Your task to perform on an android device: turn on airplane mode Image 0: 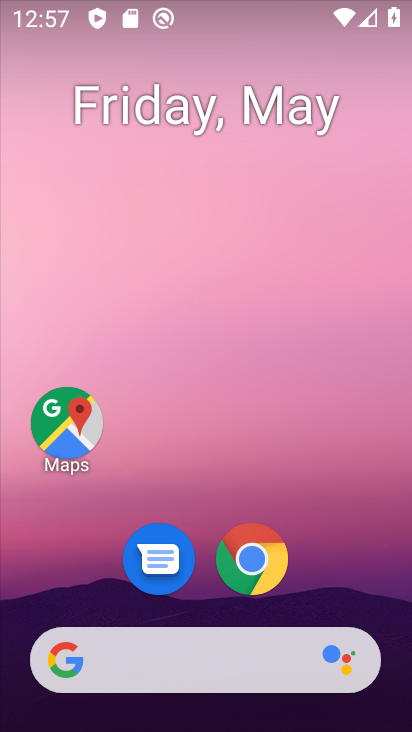
Step 0: drag from (382, 575) to (291, 97)
Your task to perform on an android device: turn on airplane mode Image 1: 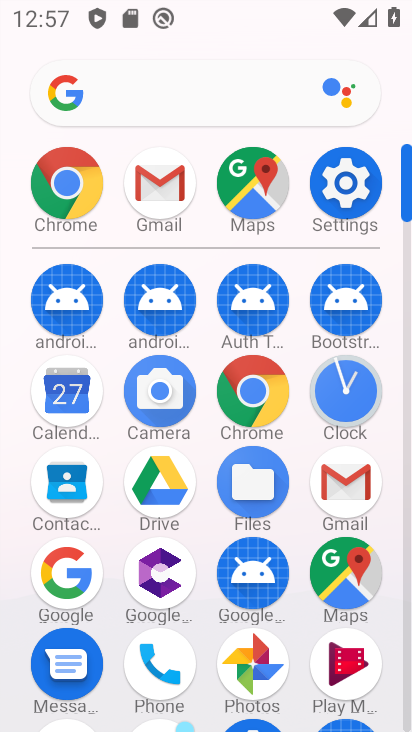
Step 1: click (334, 184)
Your task to perform on an android device: turn on airplane mode Image 2: 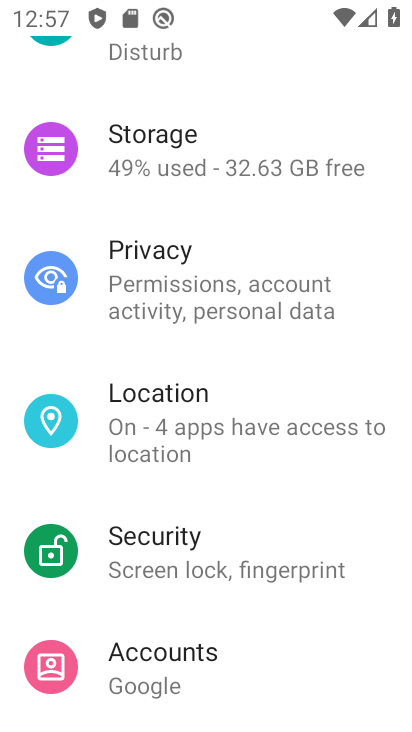
Step 2: drag from (324, 218) to (238, 618)
Your task to perform on an android device: turn on airplane mode Image 3: 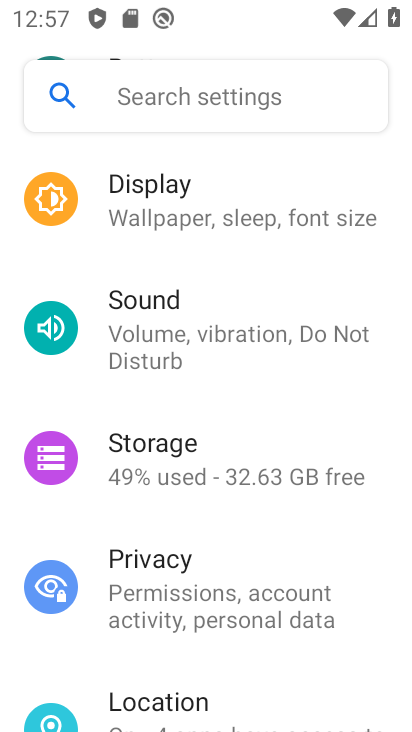
Step 3: drag from (178, 170) to (240, 632)
Your task to perform on an android device: turn on airplane mode Image 4: 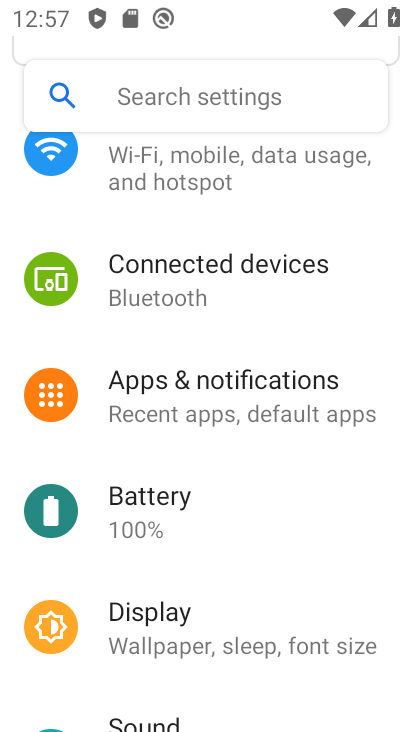
Step 4: drag from (203, 180) to (215, 580)
Your task to perform on an android device: turn on airplane mode Image 5: 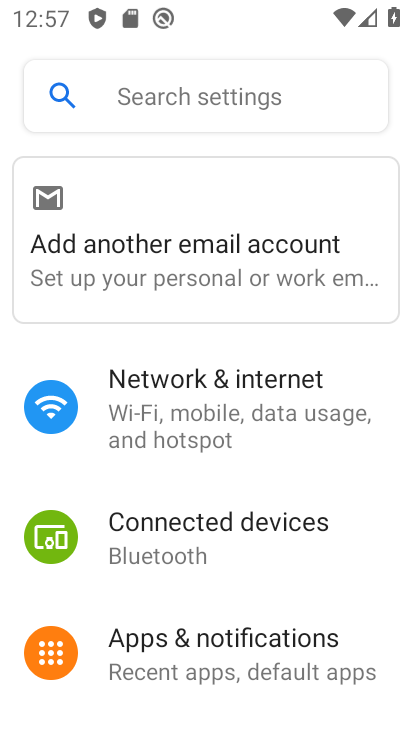
Step 5: click (179, 394)
Your task to perform on an android device: turn on airplane mode Image 6: 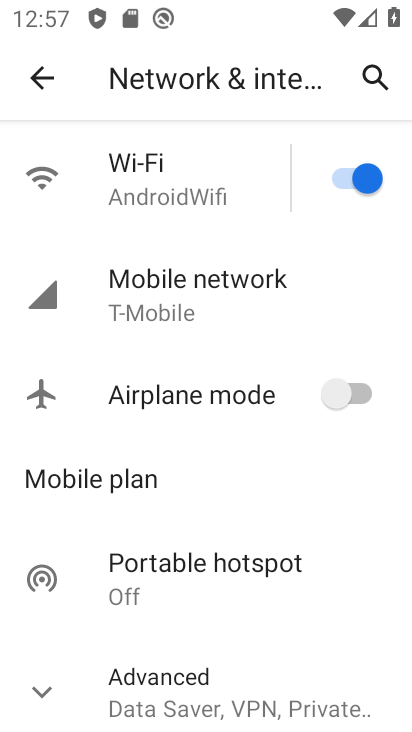
Step 6: click (323, 416)
Your task to perform on an android device: turn on airplane mode Image 7: 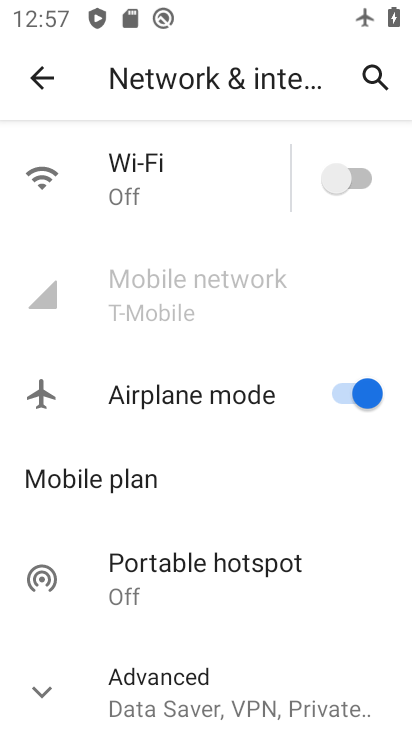
Step 7: task complete